Your task to perform on an android device: Open Amazon Image 0: 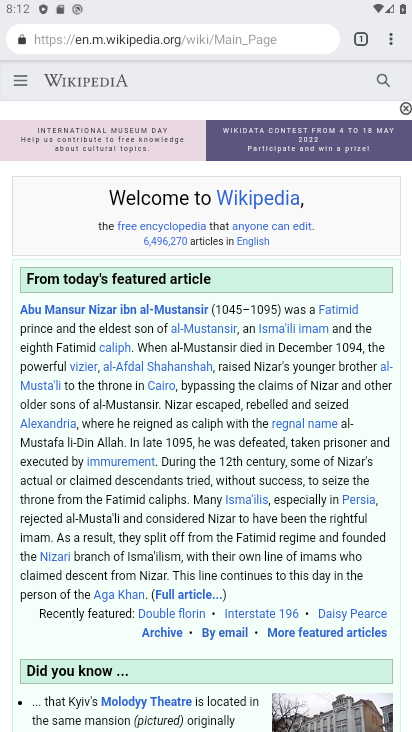
Step 0: click (214, 43)
Your task to perform on an android device: Open Amazon Image 1: 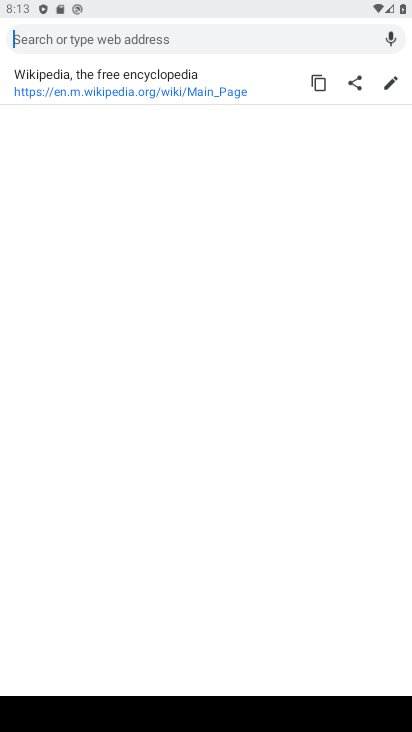
Step 1: type "amazon"
Your task to perform on an android device: Open Amazon Image 2: 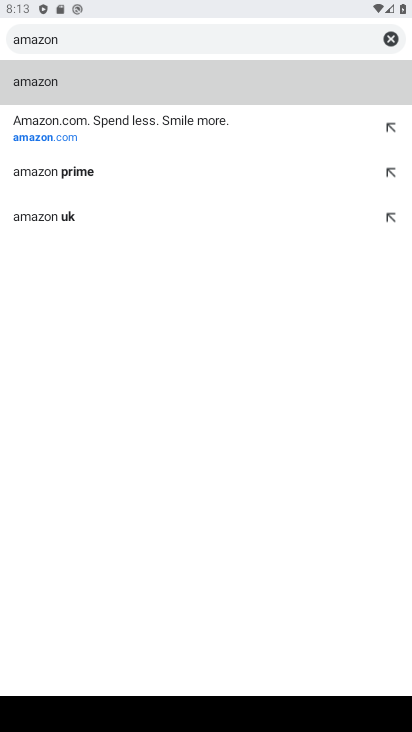
Step 2: click (106, 143)
Your task to perform on an android device: Open Amazon Image 3: 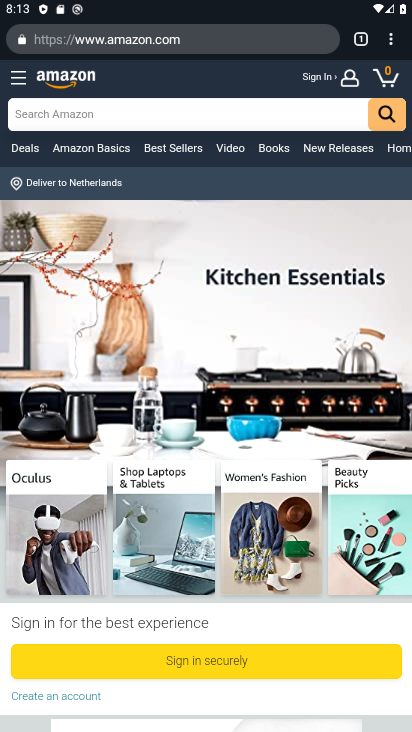
Step 3: task complete